Your task to perform on an android device: add a contact Image 0: 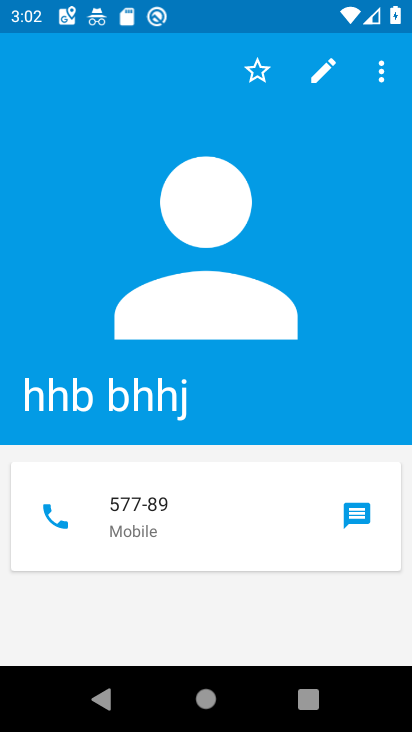
Step 0: press home button
Your task to perform on an android device: add a contact Image 1: 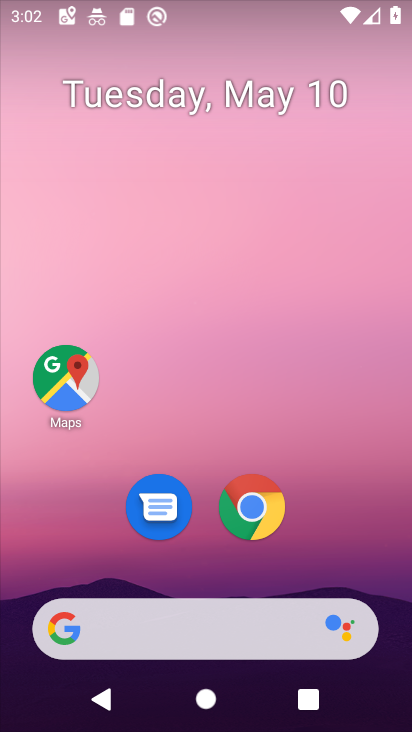
Step 1: drag from (205, 572) to (275, 119)
Your task to perform on an android device: add a contact Image 2: 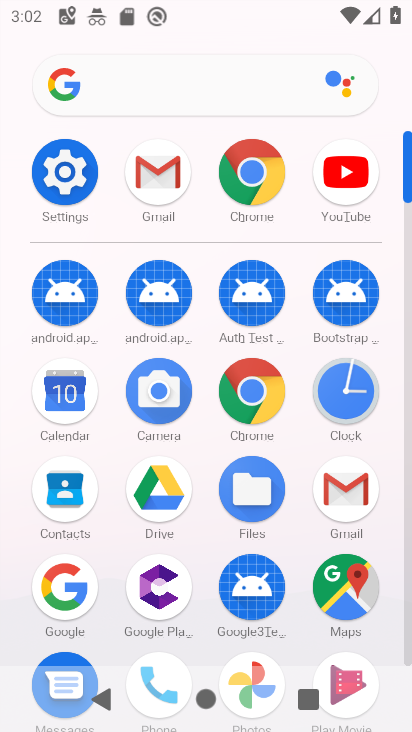
Step 2: click (66, 493)
Your task to perform on an android device: add a contact Image 3: 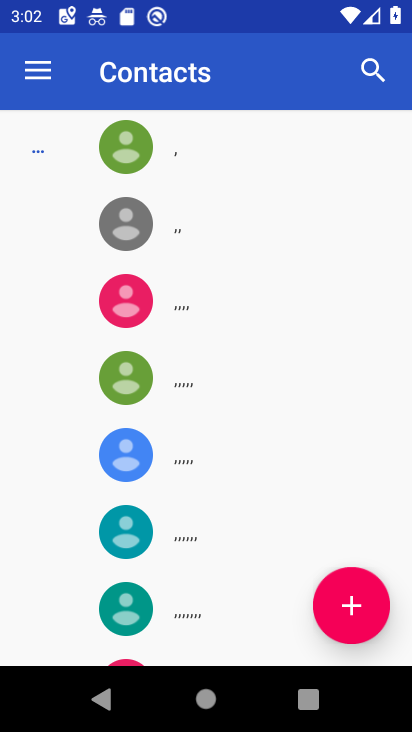
Step 3: click (358, 598)
Your task to perform on an android device: add a contact Image 4: 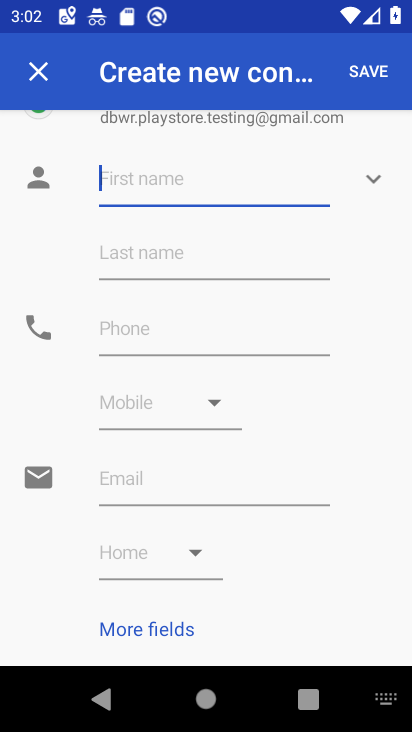
Step 4: type "dvdv"
Your task to perform on an android device: add a contact Image 5: 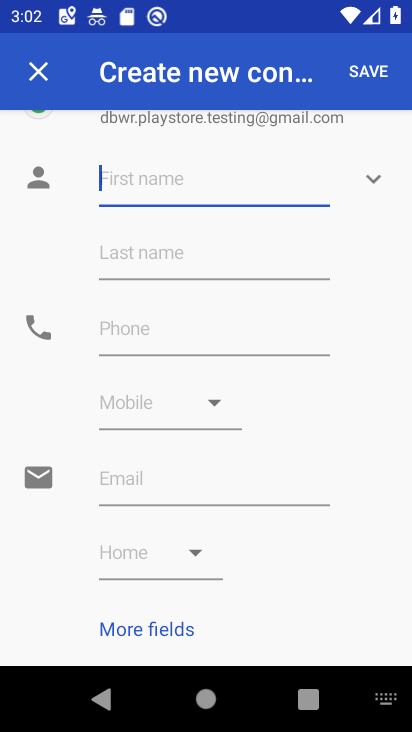
Step 5: click (176, 255)
Your task to perform on an android device: add a contact Image 6: 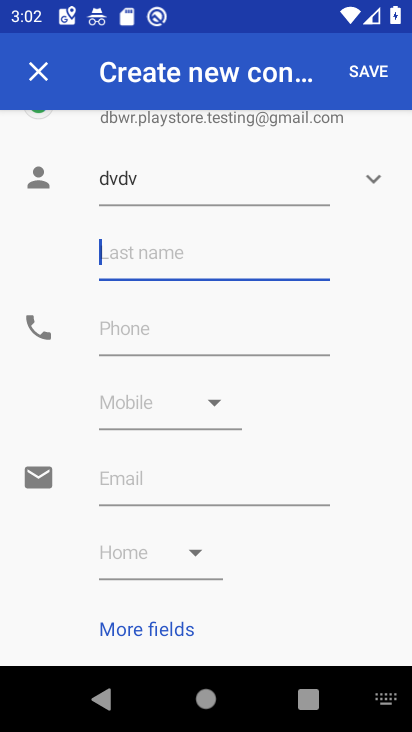
Step 6: type "dvdgd"
Your task to perform on an android device: add a contact Image 7: 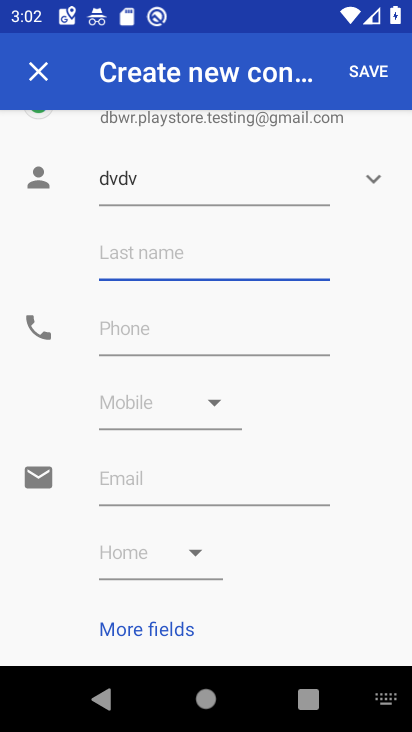
Step 7: click (146, 316)
Your task to perform on an android device: add a contact Image 8: 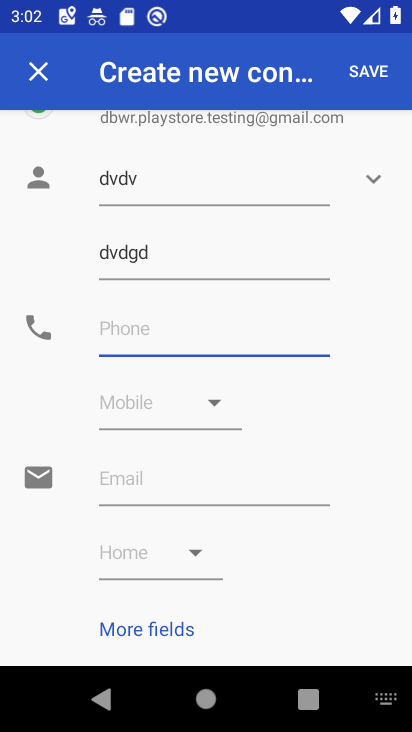
Step 8: type "242424"
Your task to perform on an android device: add a contact Image 9: 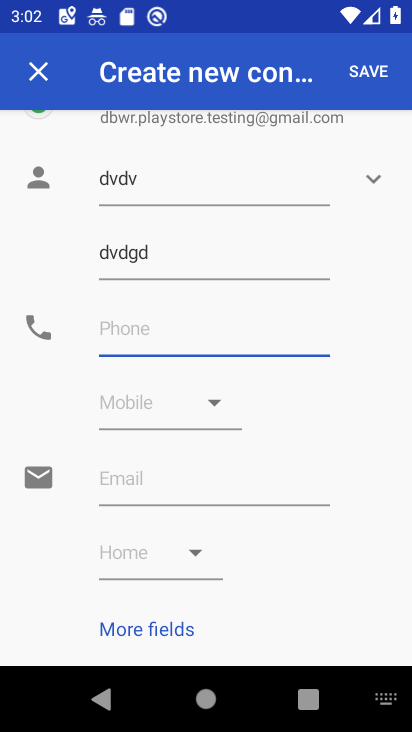
Step 9: click (174, 417)
Your task to perform on an android device: add a contact Image 10: 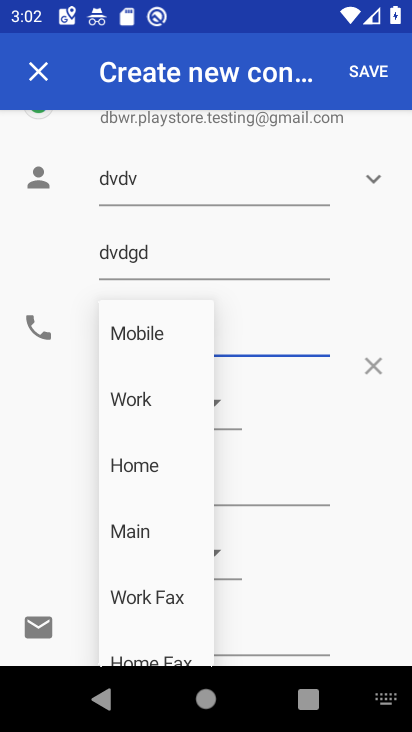
Step 10: click (393, 299)
Your task to perform on an android device: add a contact Image 11: 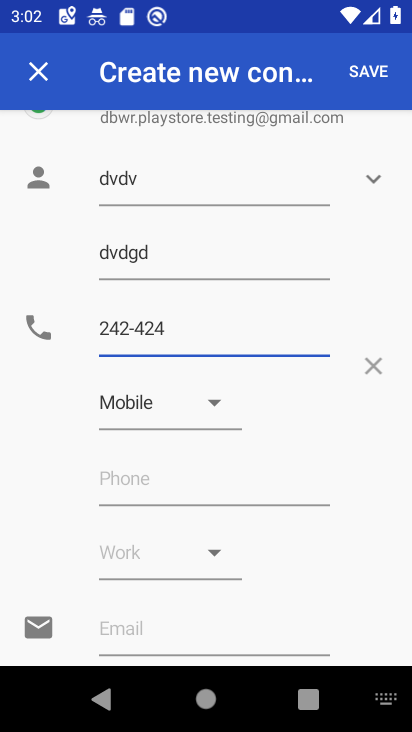
Step 11: click (357, 80)
Your task to perform on an android device: add a contact Image 12: 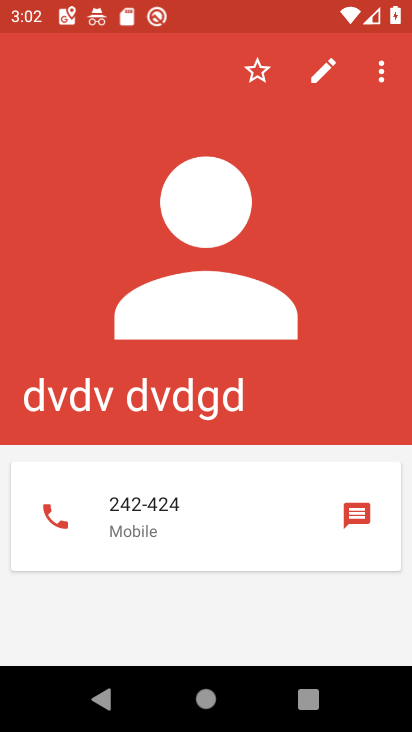
Step 12: task complete